Your task to perform on an android device: Go to internet settings Image 0: 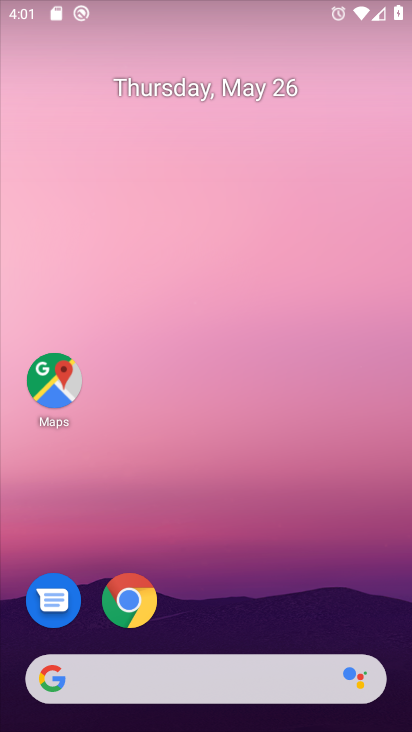
Step 0: drag from (221, 610) to (200, 113)
Your task to perform on an android device: Go to internet settings Image 1: 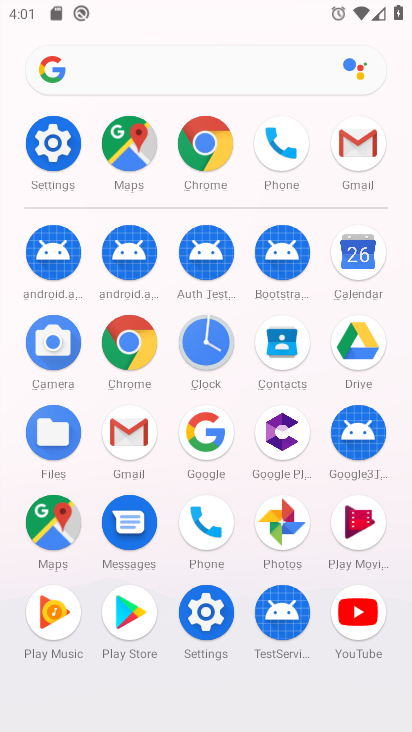
Step 1: click (55, 140)
Your task to perform on an android device: Go to internet settings Image 2: 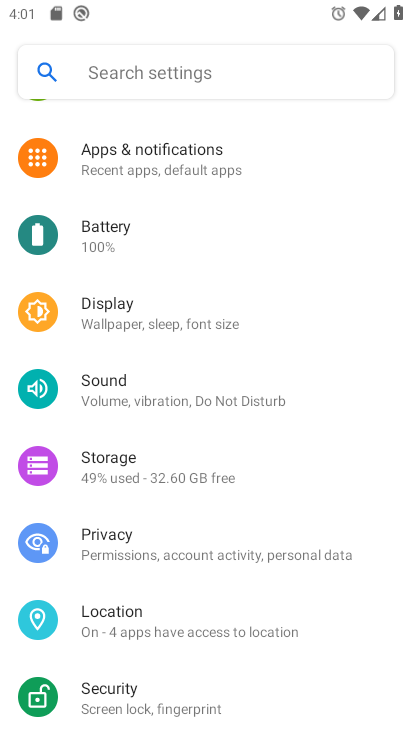
Step 2: drag from (157, 597) to (212, 336)
Your task to perform on an android device: Go to internet settings Image 3: 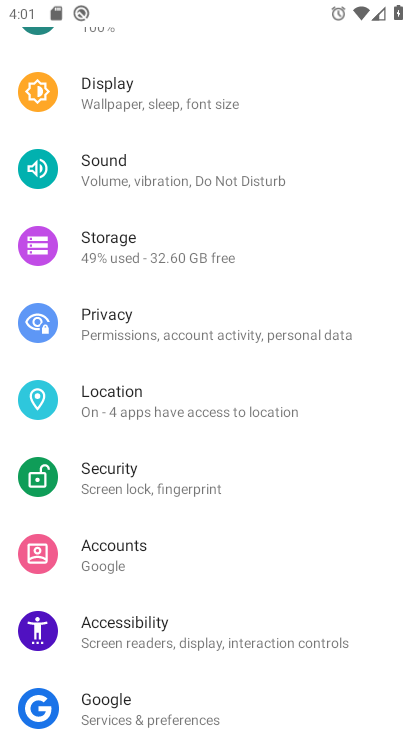
Step 3: drag from (186, 386) to (183, 612)
Your task to perform on an android device: Go to internet settings Image 4: 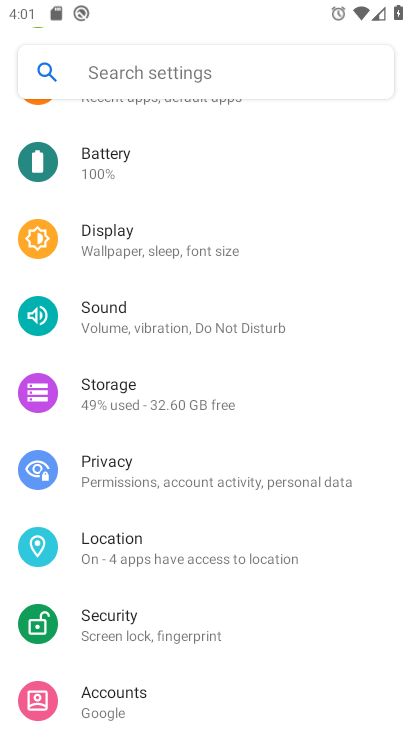
Step 4: drag from (188, 130) to (198, 440)
Your task to perform on an android device: Go to internet settings Image 5: 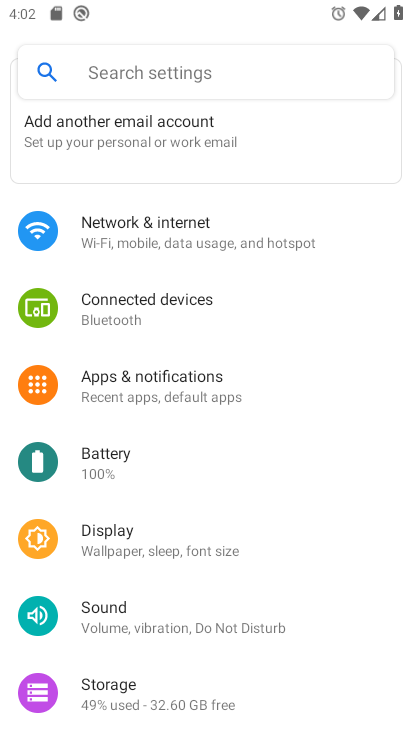
Step 5: click (172, 255)
Your task to perform on an android device: Go to internet settings Image 6: 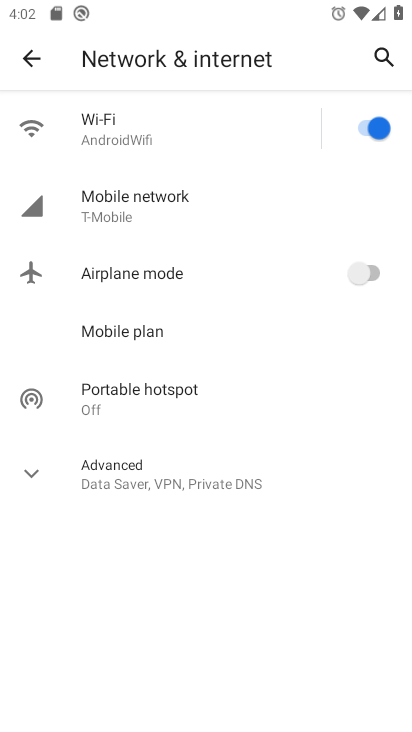
Step 6: task complete